Your task to perform on an android device: toggle location history Image 0: 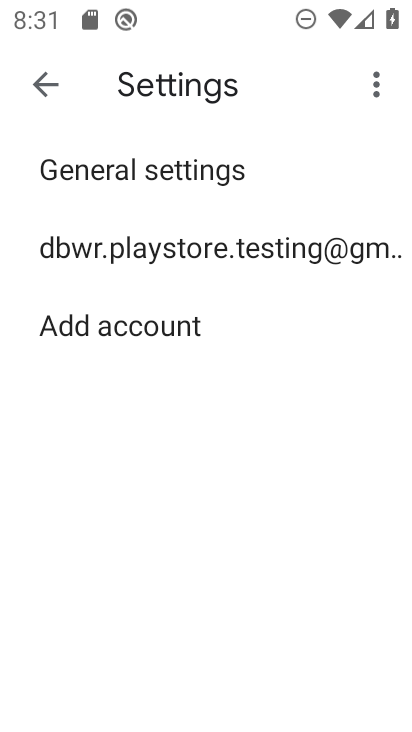
Step 0: press home button
Your task to perform on an android device: toggle location history Image 1: 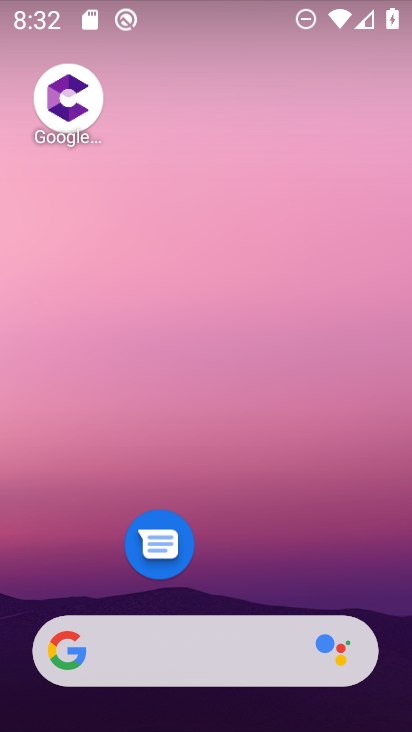
Step 1: click (240, 38)
Your task to perform on an android device: toggle location history Image 2: 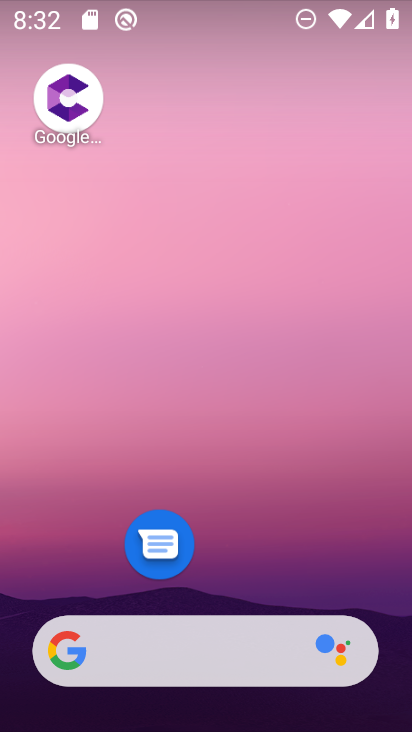
Step 2: drag from (213, 588) to (207, 104)
Your task to perform on an android device: toggle location history Image 3: 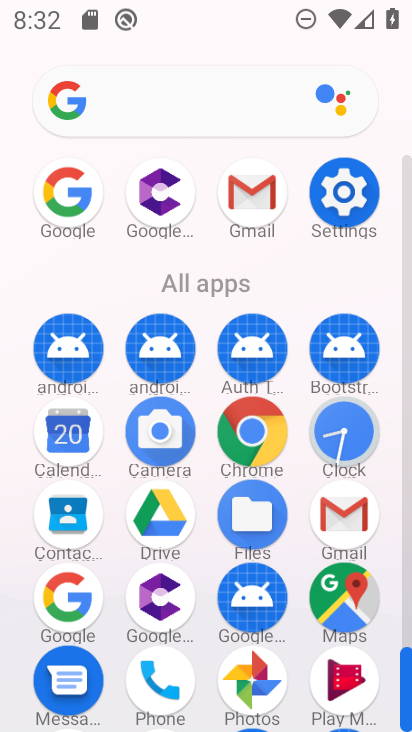
Step 3: click (336, 196)
Your task to perform on an android device: toggle location history Image 4: 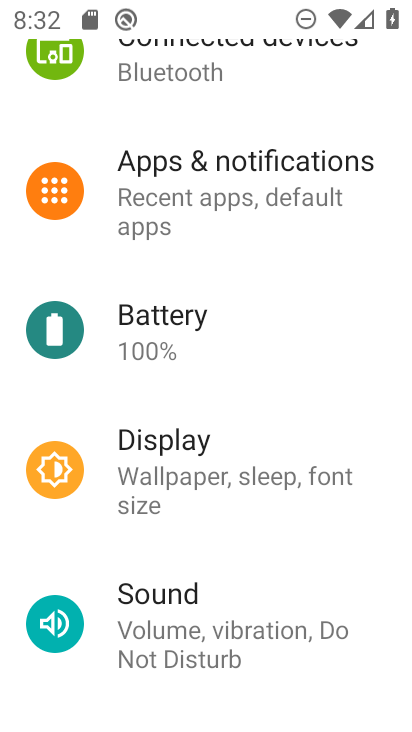
Step 4: drag from (243, 557) to (250, 174)
Your task to perform on an android device: toggle location history Image 5: 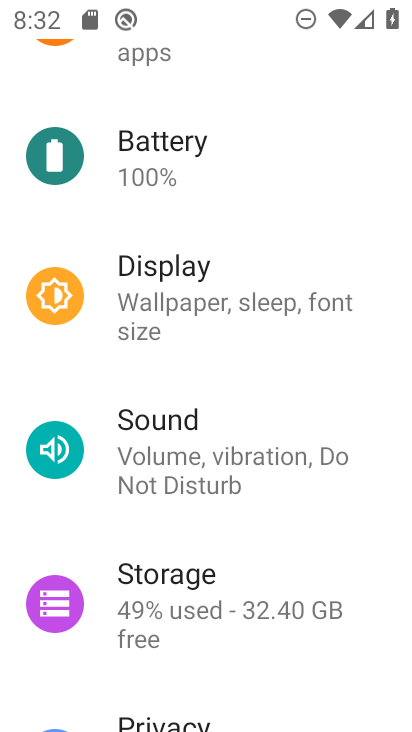
Step 5: drag from (250, 572) to (275, 200)
Your task to perform on an android device: toggle location history Image 6: 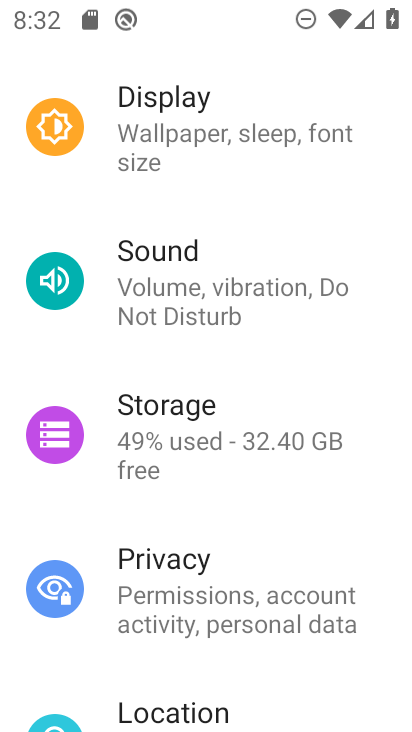
Step 6: drag from (253, 549) to (253, 294)
Your task to perform on an android device: toggle location history Image 7: 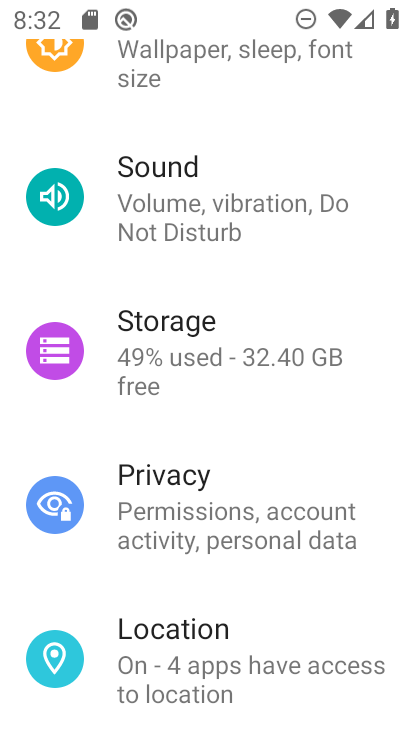
Step 7: click (205, 621)
Your task to perform on an android device: toggle location history Image 8: 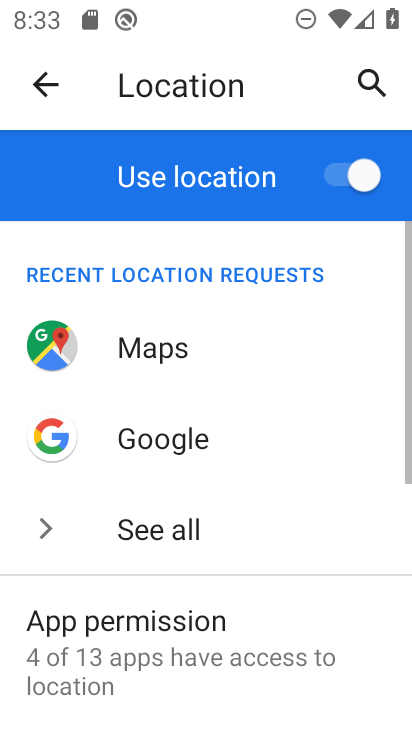
Step 8: drag from (276, 648) to (262, 225)
Your task to perform on an android device: toggle location history Image 9: 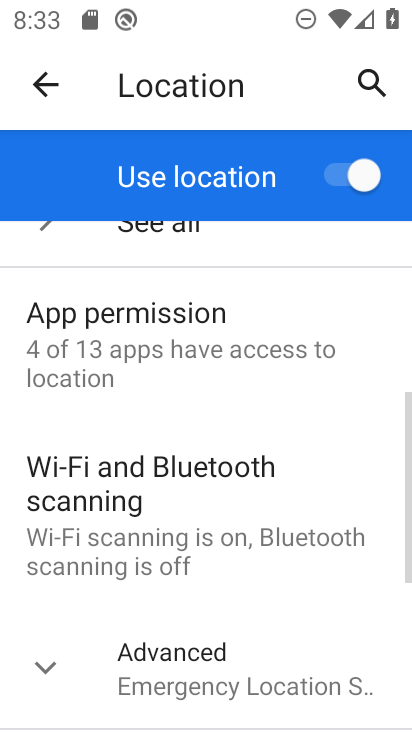
Step 9: drag from (265, 646) to (266, 271)
Your task to perform on an android device: toggle location history Image 10: 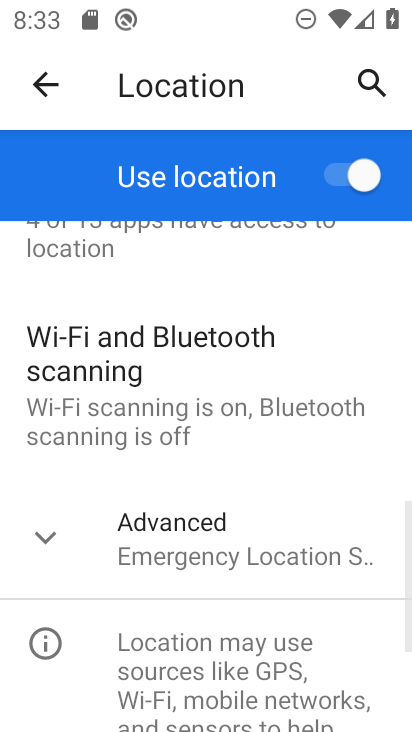
Step 10: click (218, 551)
Your task to perform on an android device: toggle location history Image 11: 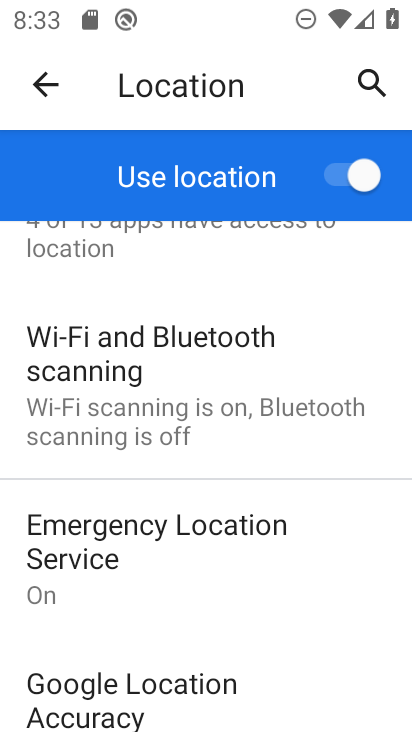
Step 11: drag from (255, 661) to (267, 295)
Your task to perform on an android device: toggle location history Image 12: 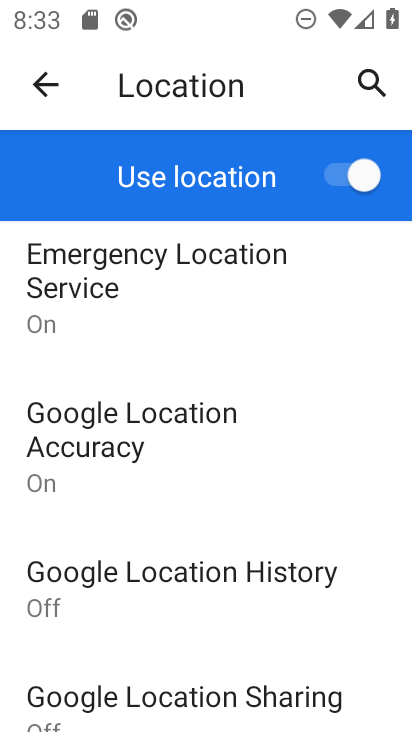
Step 12: click (182, 589)
Your task to perform on an android device: toggle location history Image 13: 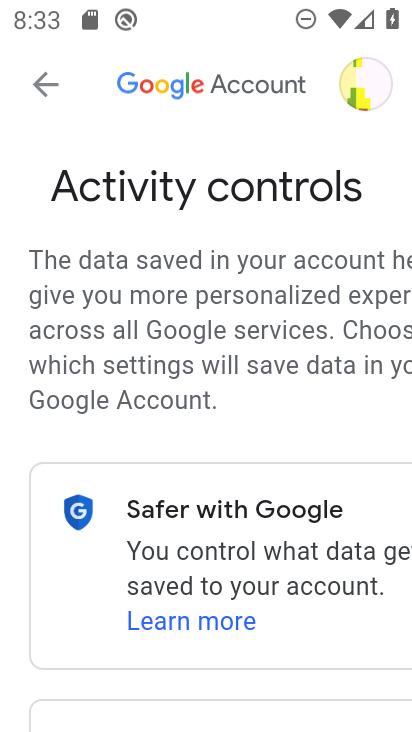
Step 13: drag from (273, 635) to (282, 273)
Your task to perform on an android device: toggle location history Image 14: 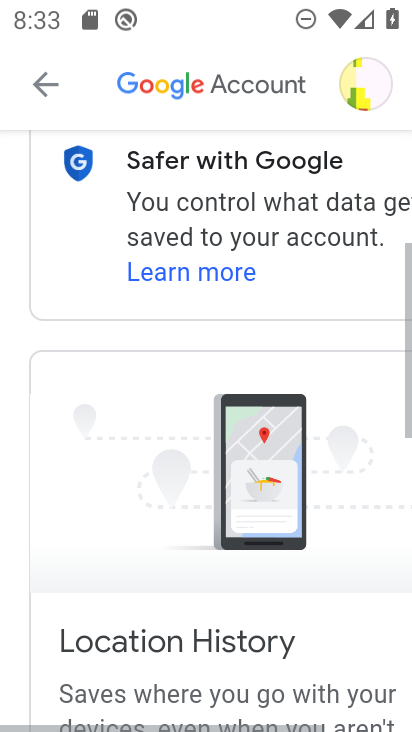
Step 14: drag from (298, 590) to (279, 172)
Your task to perform on an android device: toggle location history Image 15: 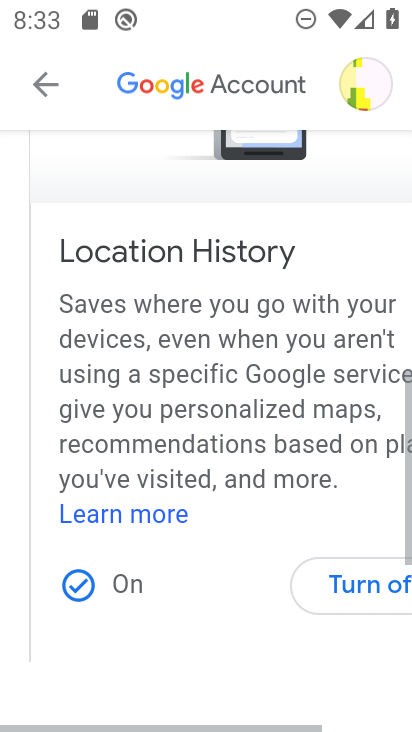
Step 15: drag from (288, 573) to (288, 215)
Your task to perform on an android device: toggle location history Image 16: 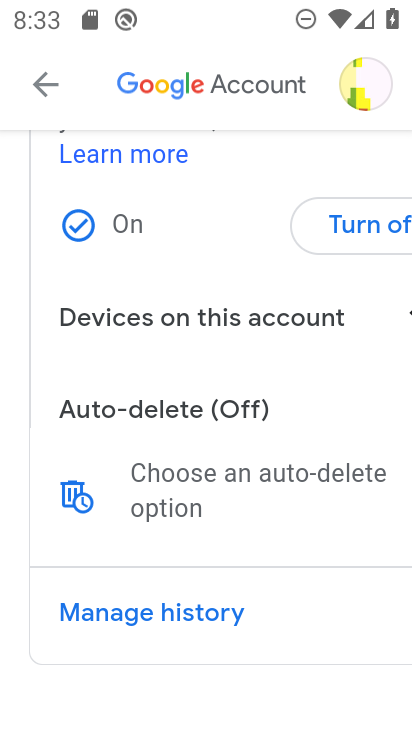
Step 16: click (341, 210)
Your task to perform on an android device: toggle location history Image 17: 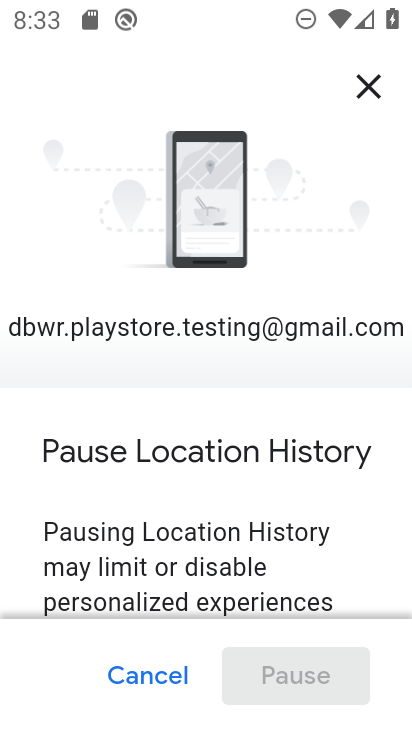
Step 17: drag from (299, 561) to (279, 200)
Your task to perform on an android device: toggle location history Image 18: 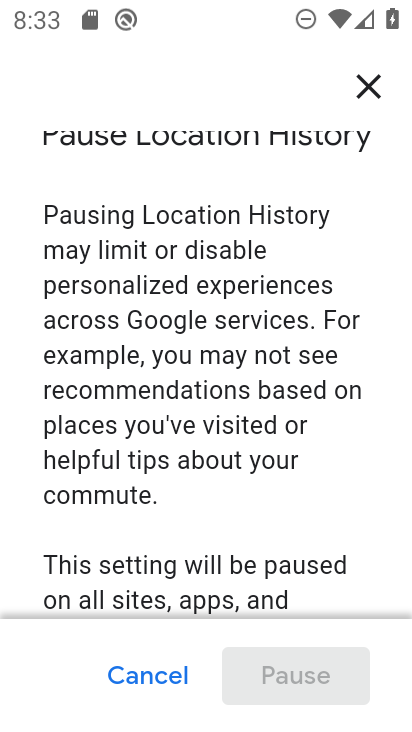
Step 18: drag from (302, 515) to (302, 210)
Your task to perform on an android device: toggle location history Image 19: 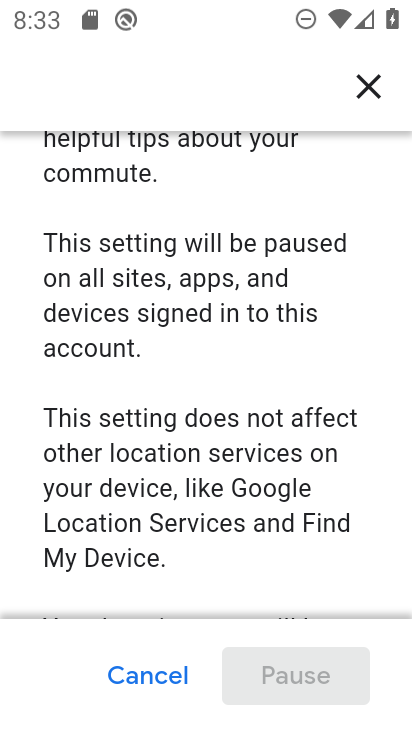
Step 19: drag from (317, 470) to (317, 195)
Your task to perform on an android device: toggle location history Image 20: 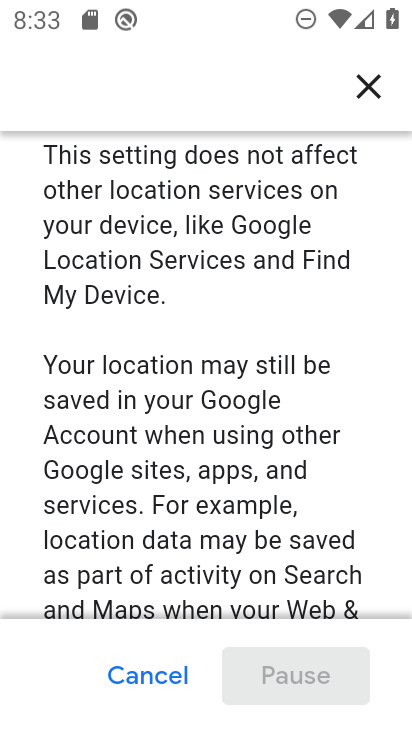
Step 20: drag from (297, 465) to (297, 201)
Your task to perform on an android device: toggle location history Image 21: 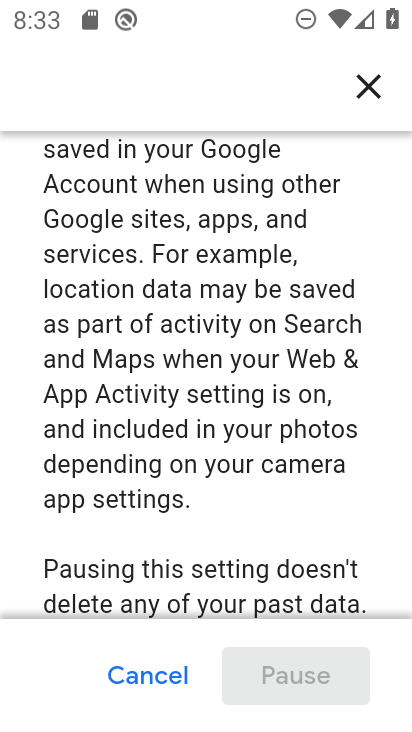
Step 21: drag from (288, 564) to (286, 257)
Your task to perform on an android device: toggle location history Image 22: 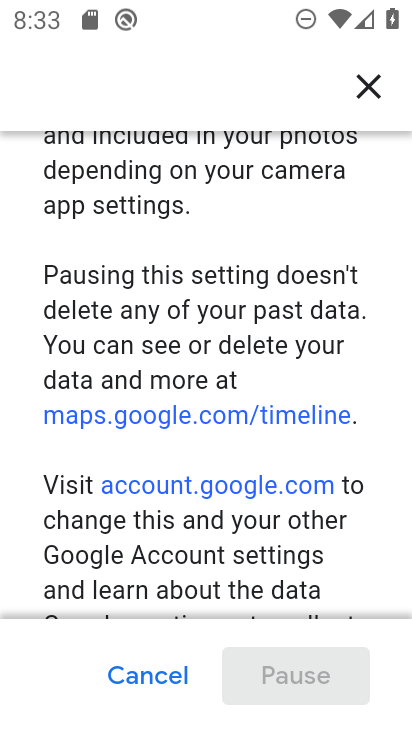
Step 22: click (299, 240)
Your task to perform on an android device: toggle location history Image 23: 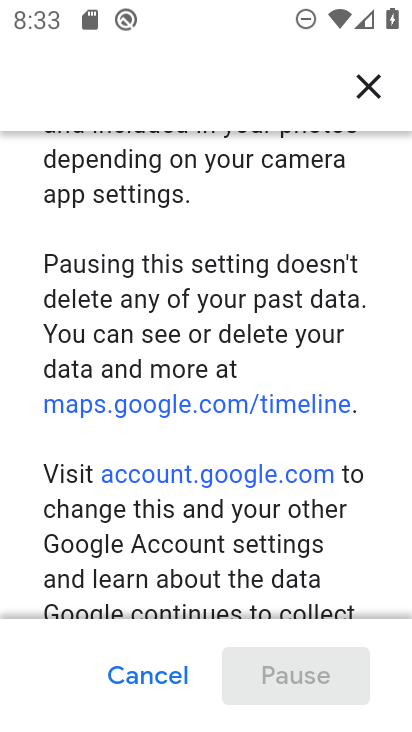
Step 23: drag from (320, 544) to (315, 229)
Your task to perform on an android device: toggle location history Image 24: 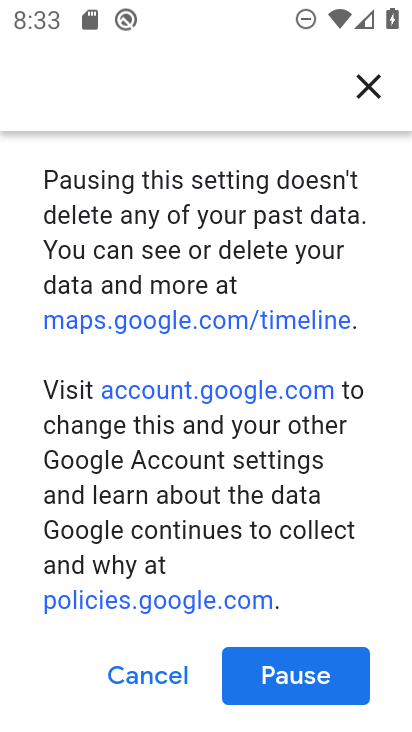
Step 24: drag from (319, 513) to (319, 202)
Your task to perform on an android device: toggle location history Image 25: 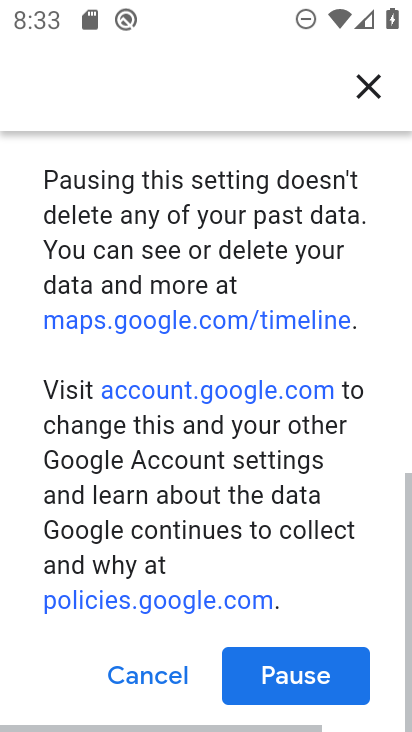
Step 25: click (312, 654)
Your task to perform on an android device: toggle location history Image 26: 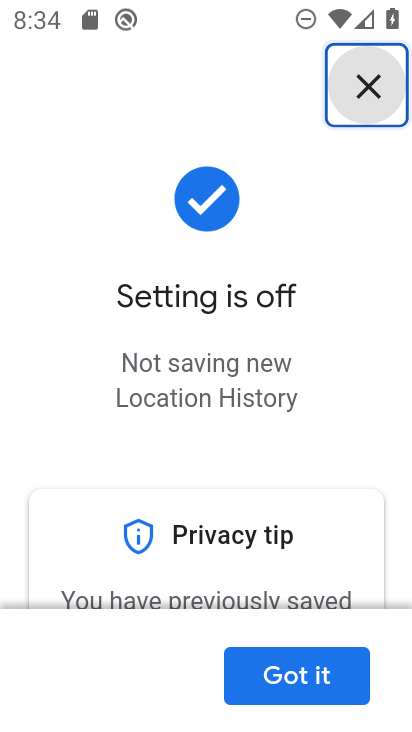
Step 26: click (312, 661)
Your task to perform on an android device: toggle location history Image 27: 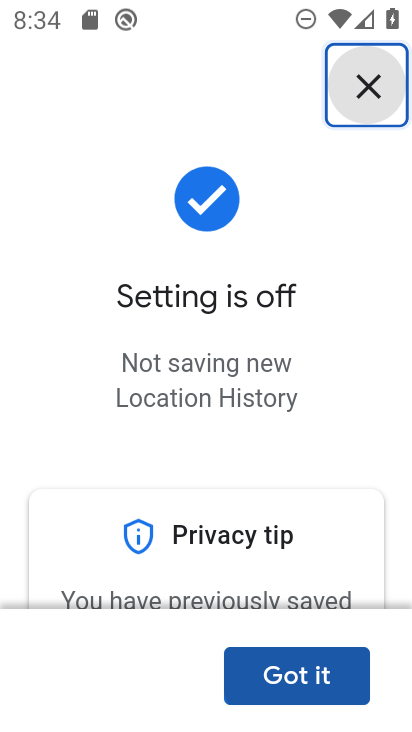
Step 27: task complete